Your task to perform on an android device: Open Google Maps Image 0: 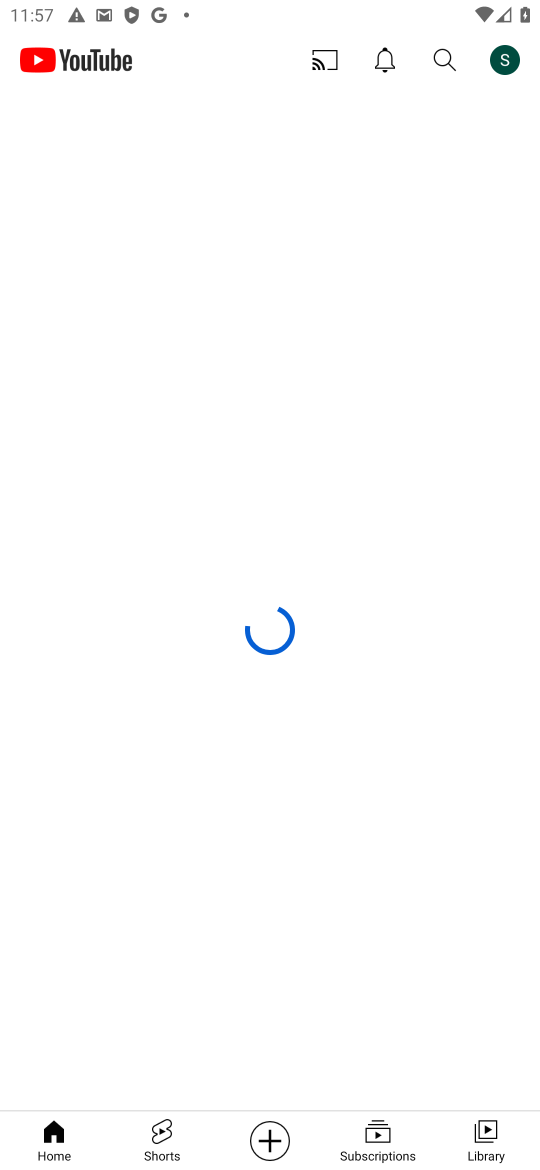
Step 0: press home button
Your task to perform on an android device: Open Google Maps Image 1: 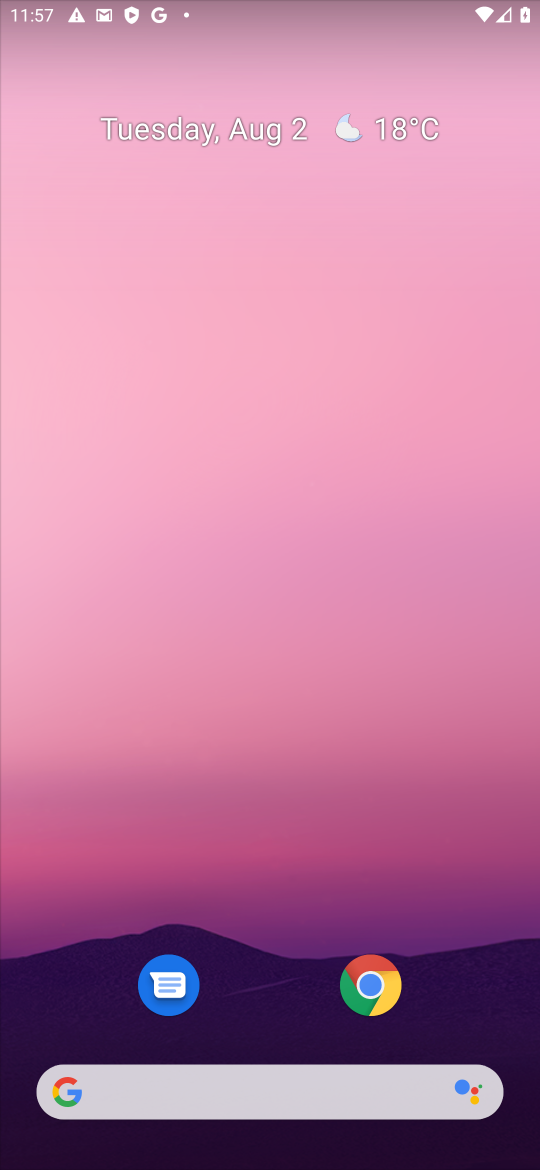
Step 1: drag from (275, 1057) to (274, 374)
Your task to perform on an android device: Open Google Maps Image 2: 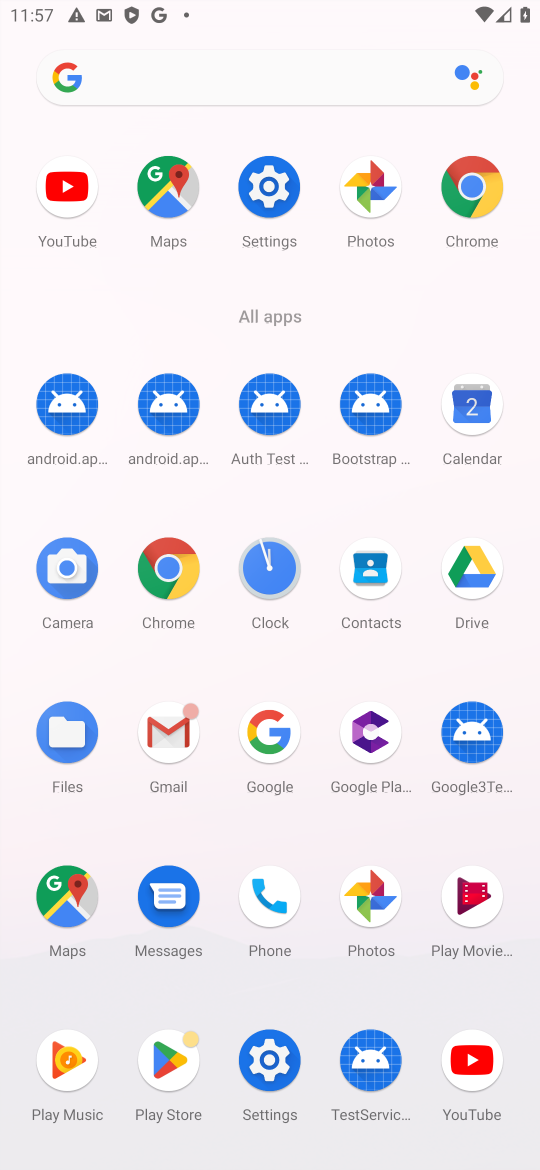
Step 2: click (47, 919)
Your task to perform on an android device: Open Google Maps Image 3: 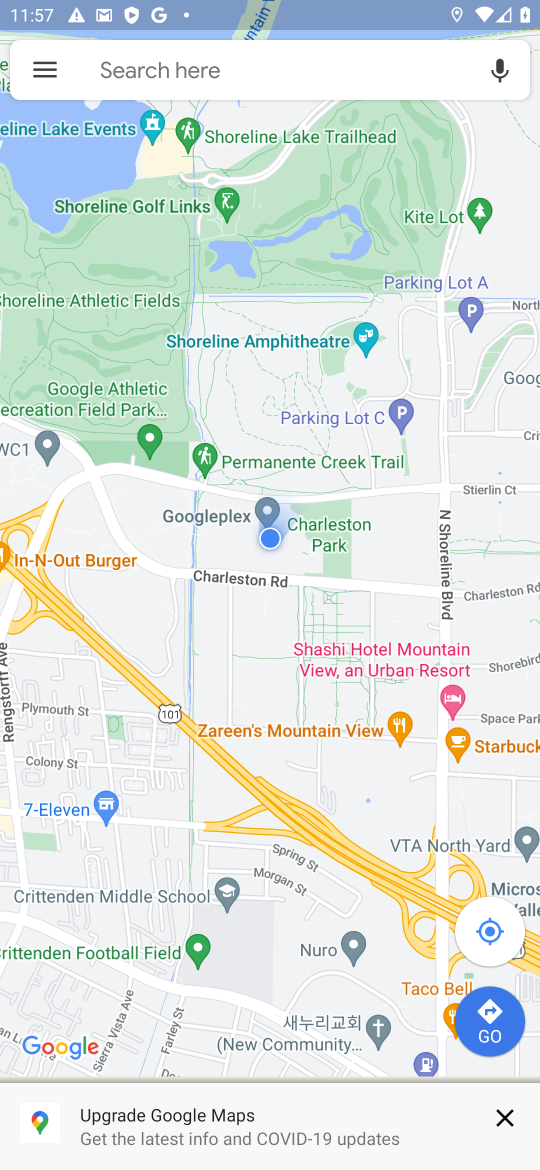
Step 3: task complete